Your task to perform on an android device: set default search engine in the chrome app Image 0: 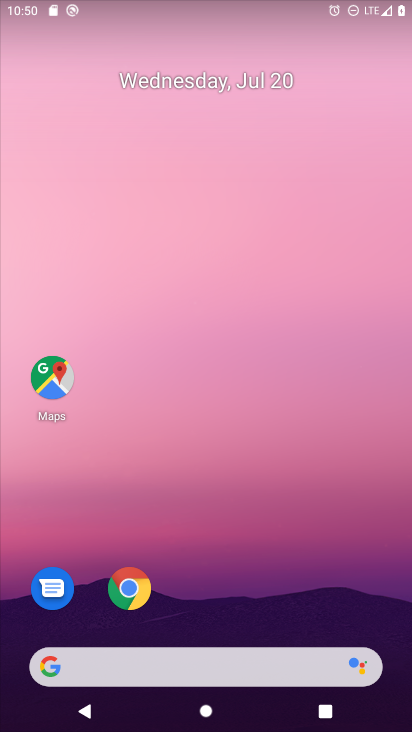
Step 0: click (123, 579)
Your task to perform on an android device: set default search engine in the chrome app Image 1: 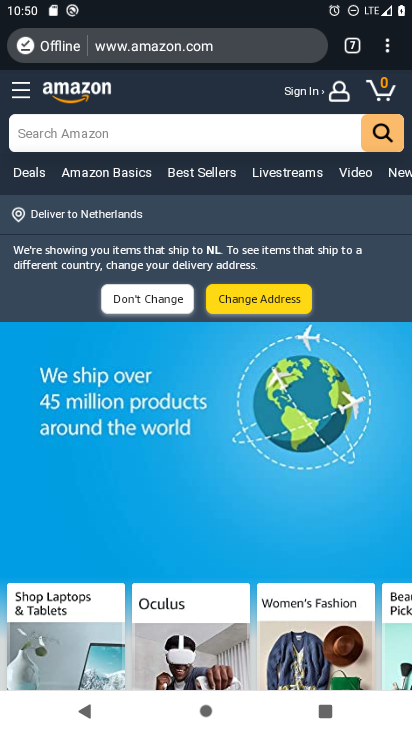
Step 1: click (402, 55)
Your task to perform on an android device: set default search engine in the chrome app Image 2: 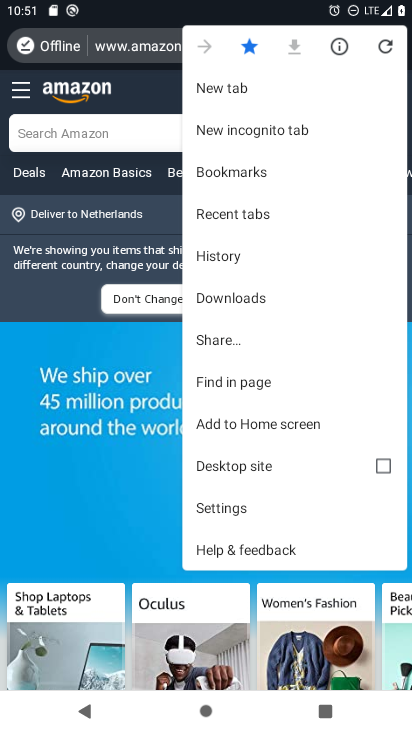
Step 2: click (267, 515)
Your task to perform on an android device: set default search engine in the chrome app Image 3: 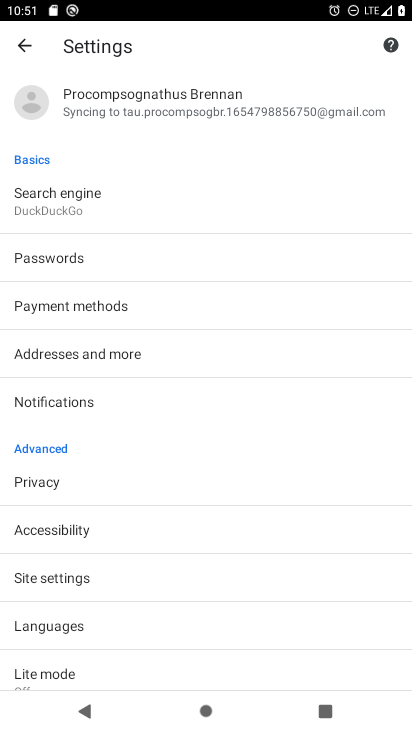
Step 3: click (85, 198)
Your task to perform on an android device: set default search engine in the chrome app Image 4: 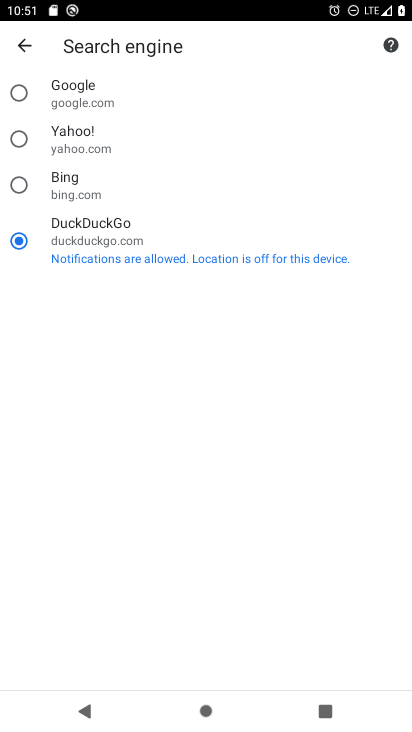
Step 4: click (85, 198)
Your task to perform on an android device: set default search engine in the chrome app Image 5: 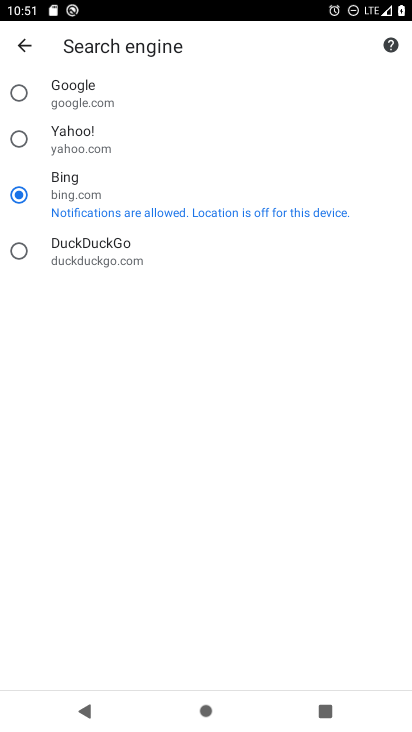
Step 5: task complete